Your task to perform on an android device: turn smart compose on in the gmail app Image 0: 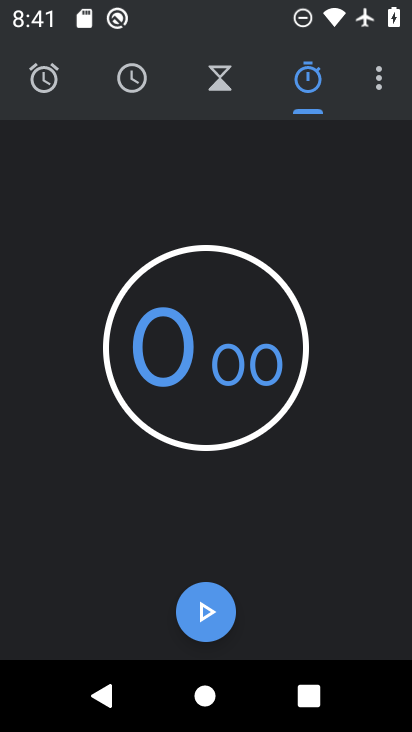
Step 0: press home button
Your task to perform on an android device: turn smart compose on in the gmail app Image 1: 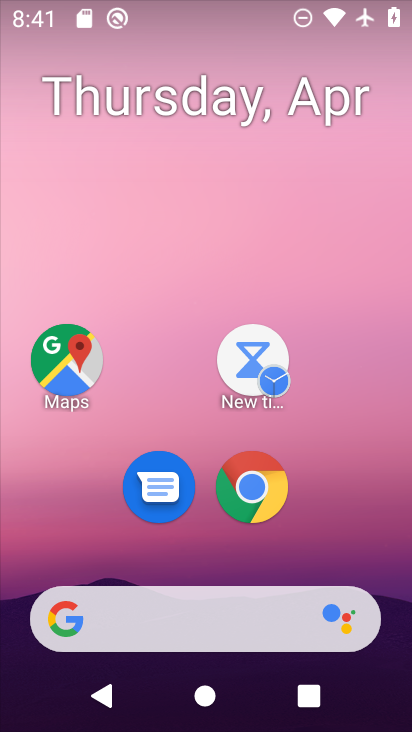
Step 1: drag from (328, 438) to (321, 137)
Your task to perform on an android device: turn smart compose on in the gmail app Image 2: 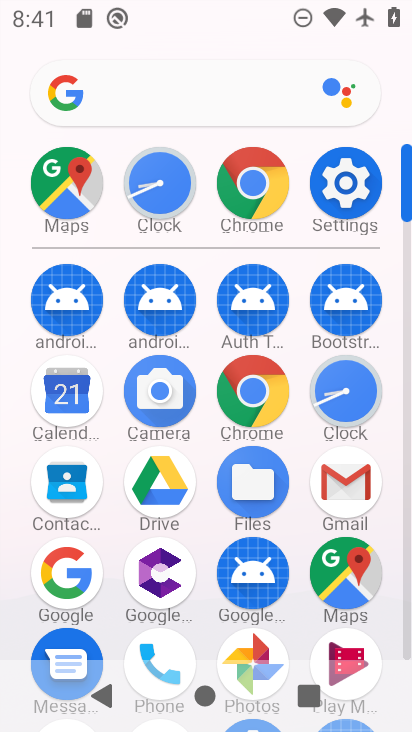
Step 2: click (352, 467)
Your task to perform on an android device: turn smart compose on in the gmail app Image 3: 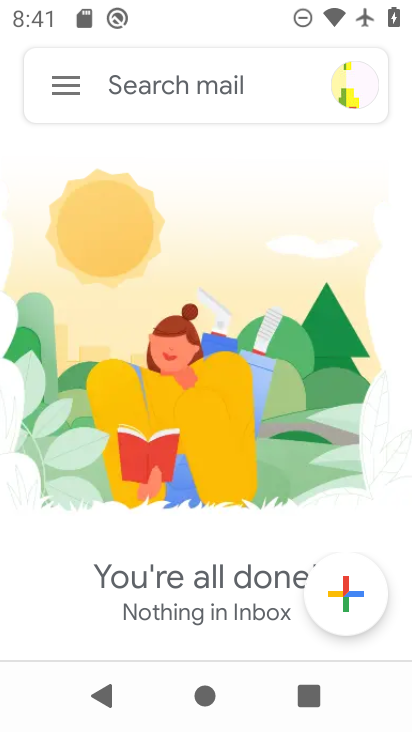
Step 3: click (67, 83)
Your task to perform on an android device: turn smart compose on in the gmail app Image 4: 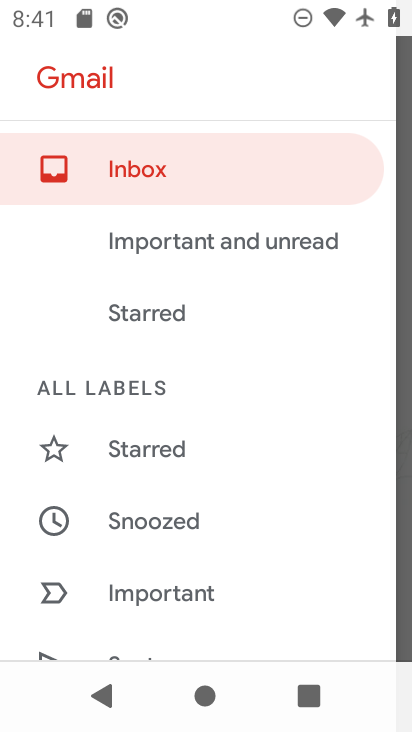
Step 4: drag from (263, 606) to (252, 112)
Your task to perform on an android device: turn smart compose on in the gmail app Image 5: 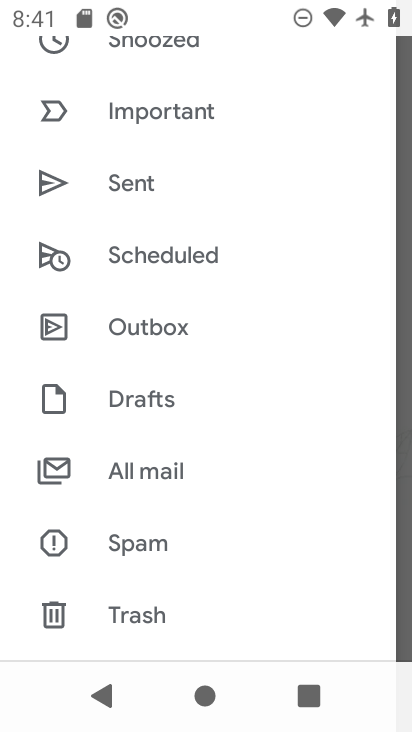
Step 5: drag from (261, 610) to (243, 237)
Your task to perform on an android device: turn smart compose on in the gmail app Image 6: 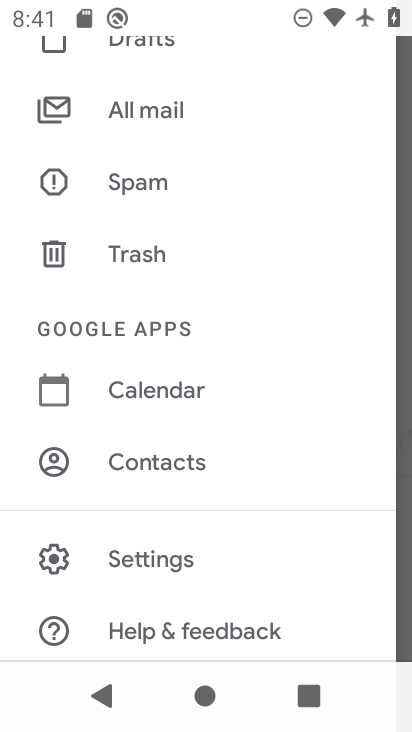
Step 6: click (146, 557)
Your task to perform on an android device: turn smart compose on in the gmail app Image 7: 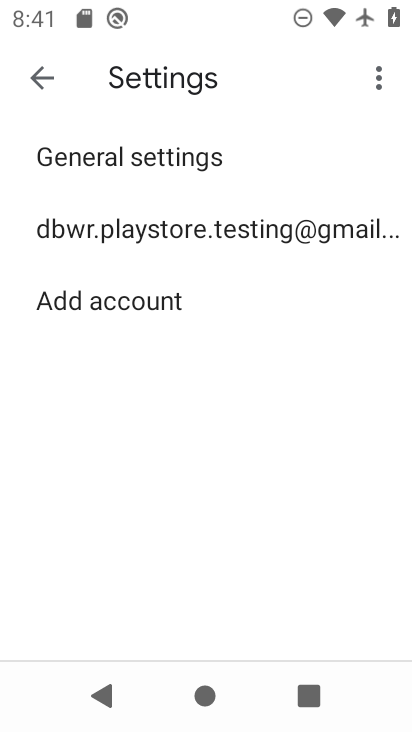
Step 7: click (224, 224)
Your task to perform on an android device: turn smart compose on in the gmail app Image 8: 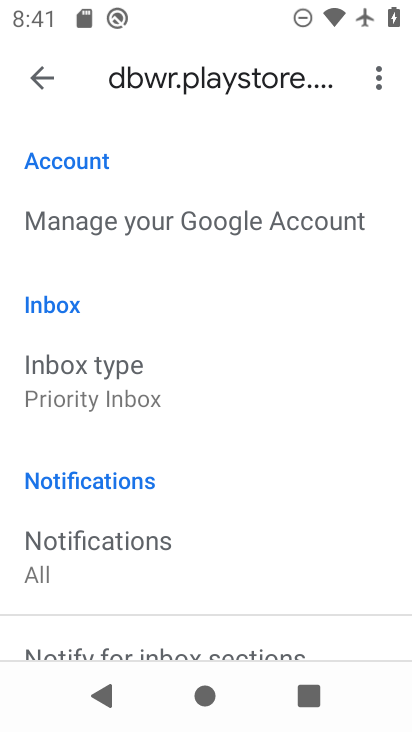
Step 8: task complete